Your task to perform on an android device: Go to accessibility settings Image 0: 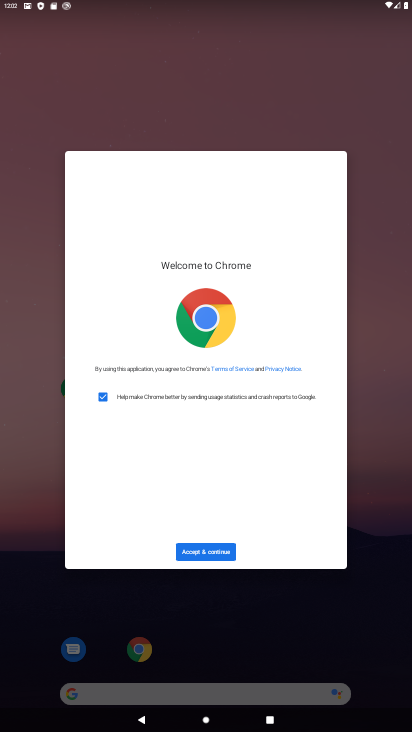
Step 0: press home button
Your task to perform on an android device: Go to accessibility settings Image 1: 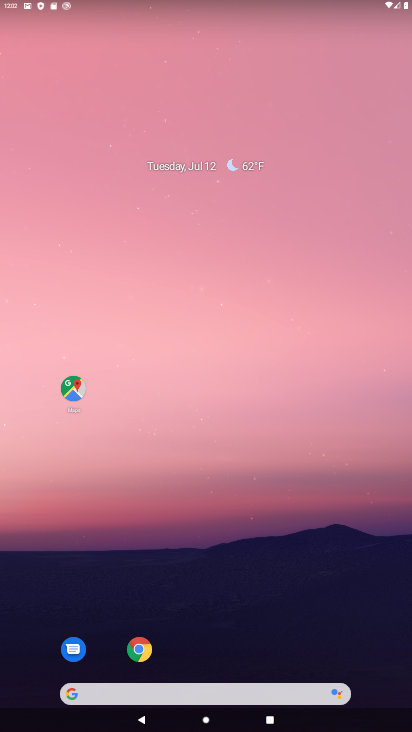
Step 1: drag from (194, 669) to (352, 150)
Your task to perform on an android device: Go to accessibility settings Image 2: 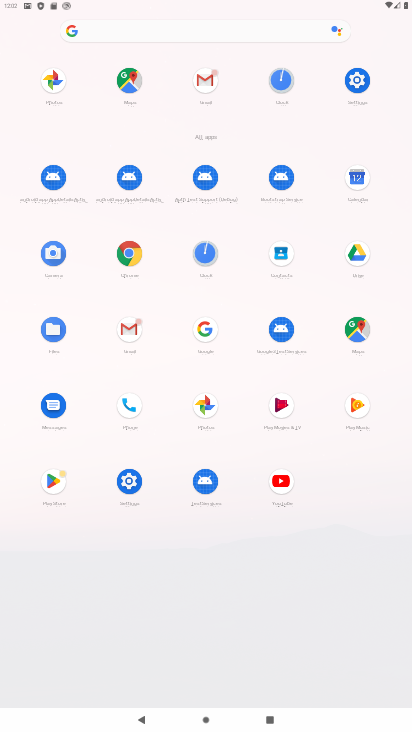
Step 2: click (129, 488)
Your task to perform on an android device: Go to accessibility settings Image 3: 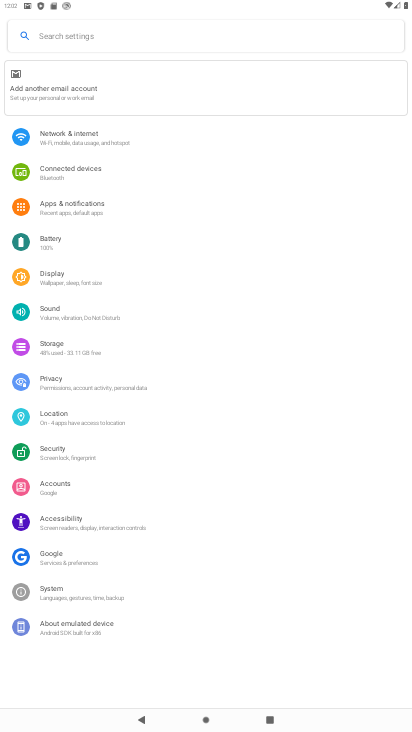
Step 3: click (75, 531)
Your task to perform on an android device: Go to accessibility settings Image 4: 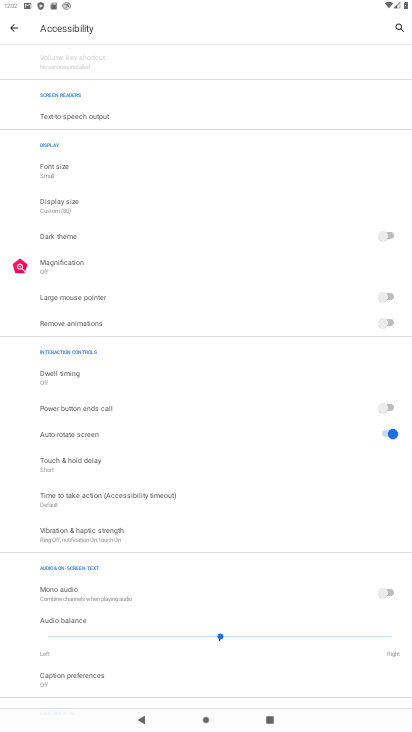
Step 4: task complete